Your task to perform on an android device: open app "Messages" (install if not already installed) Image 0: 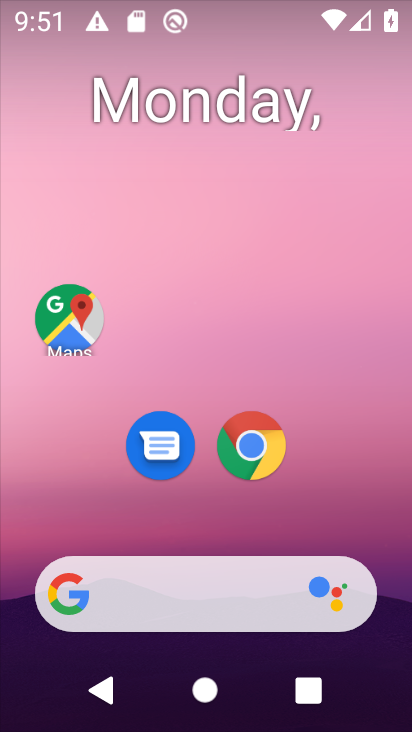
Step 0: drag from (384, 597) to (254, 0)
Your task to perform on an android device: open app "Messages" (install if not already installed) Image 1: 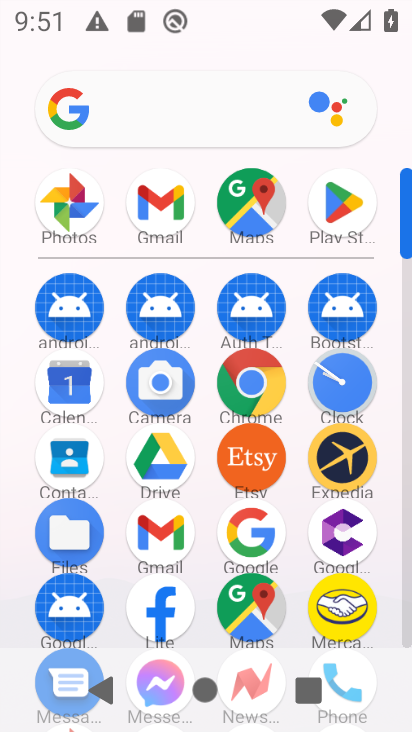
Step 1: click (340, 229)
Your task to perform on an android device: open app "Messages" (install if not already installed) Image 2: 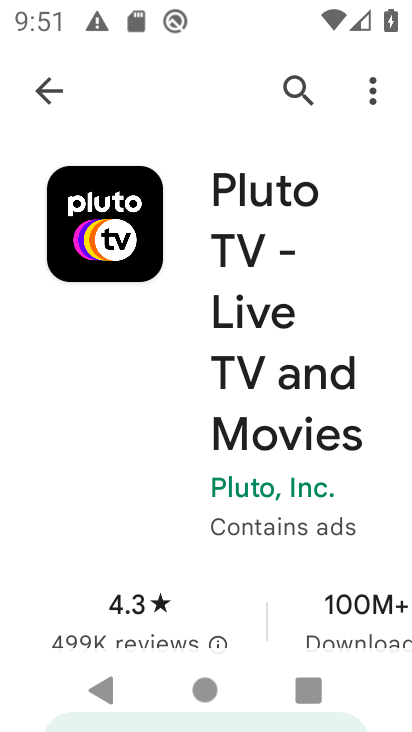
Step 2: press back button
Your task to perform on an android device: open app "Messages" (install if not already installed) Image 3: 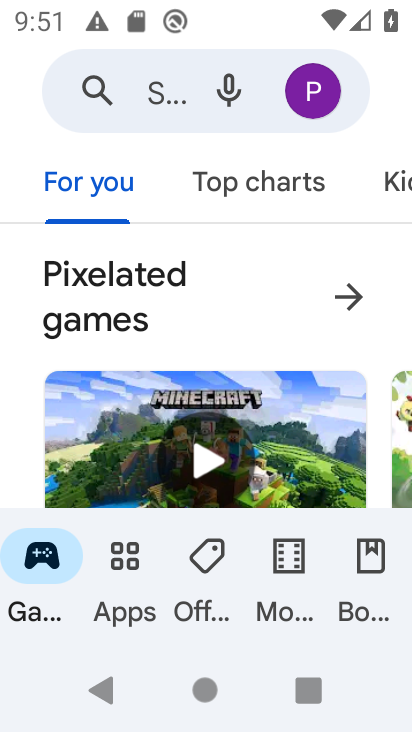
Step 3: click (147, 95)
Your task to perform on an android device: open app "Messages" (install if not already installed) Image 4: 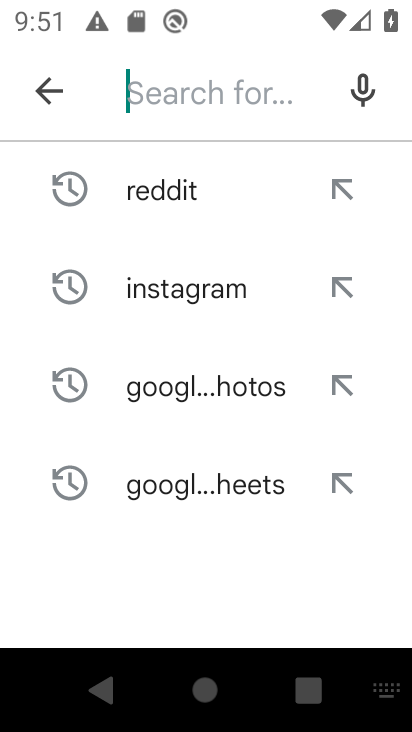
Step 4: type "Messages"
Your task to perform on an android device: open app "Messages" (install if not already installed) Image 5: 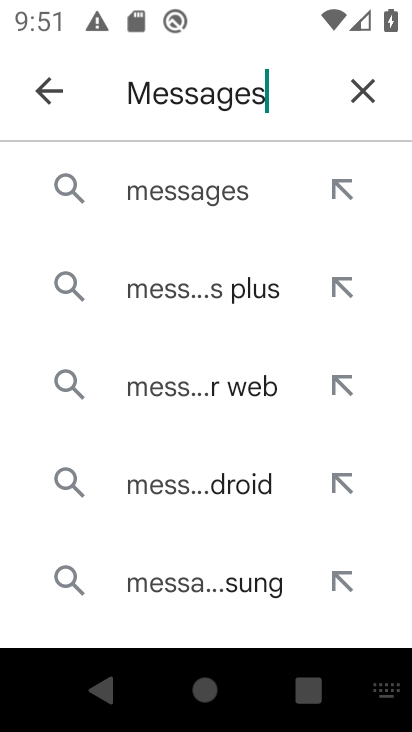
Step 5: click (177, 199)
Your task to perform on an android device: open app "Messages" (install if not already installed) Image 6: 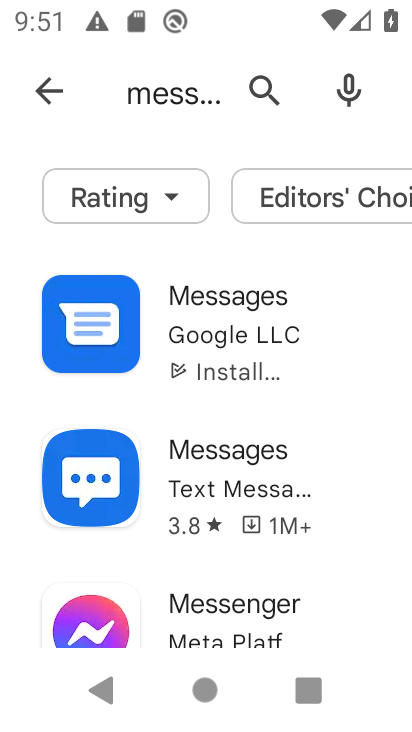
Step 6: task complete